Your task to perform on an android device: Show me the alarms in the clock app Image 0: 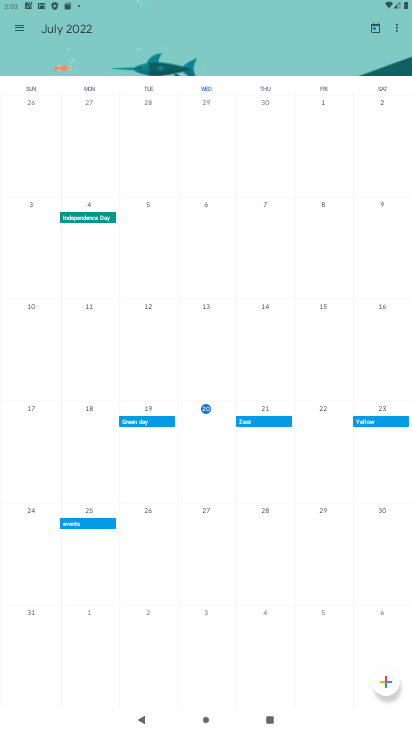
Step 0: press home button
Your task to perform on an android device: Show me the alarms in the clock app Image 1: 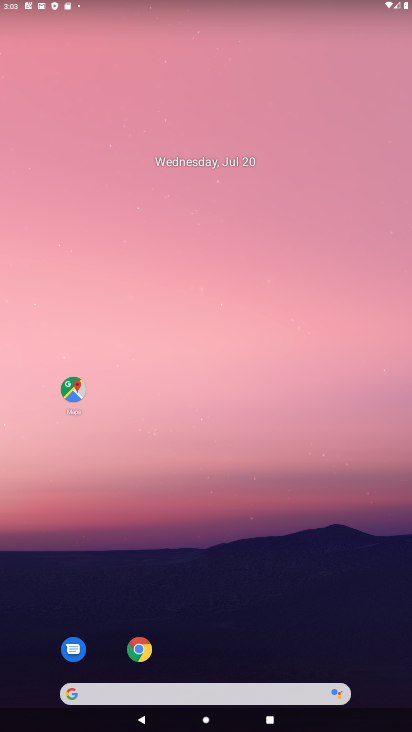
Step 1: drag from (183, 690) to (194, 160)
Your task to perform on an android device: Show me the alarms in the clock app Image 2: 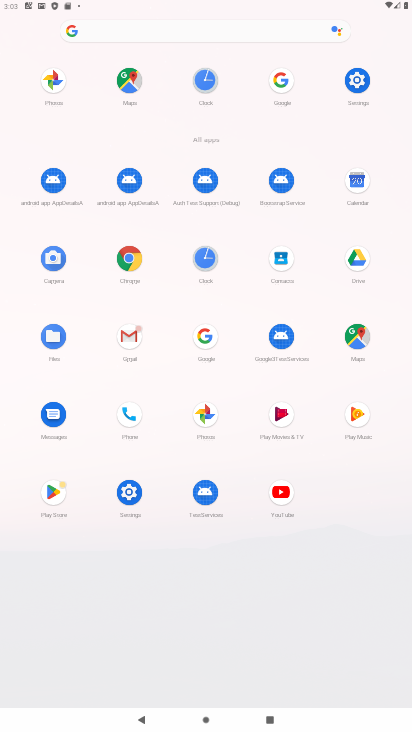
Step 2: click (206, 256)
Your task to perform on an android device: Show me the alarms in the clock app Image 3: 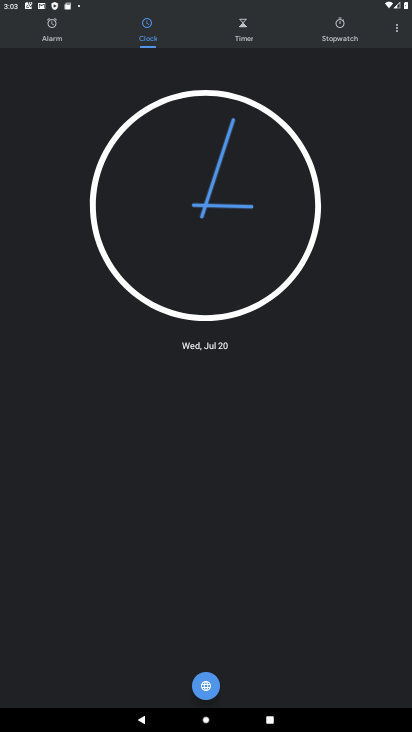
Step 3: click (49, 29)
Your task to perform on an android device: Show me the alarms in the clock app Image 4: 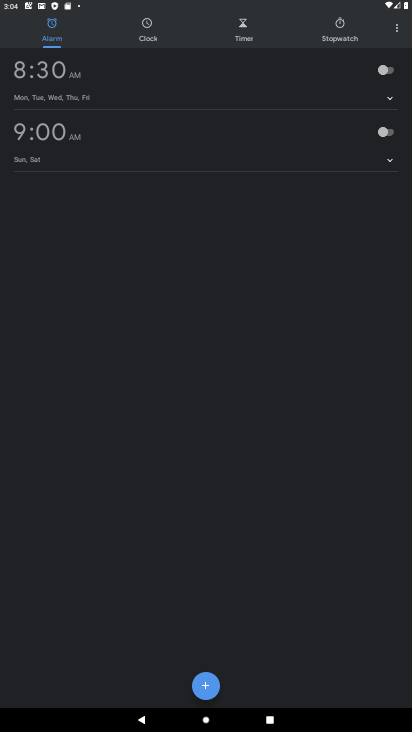
Step 4: click (204, 686)
Your task to perform on an android device: Show me the alarms in the clock app Image 5: 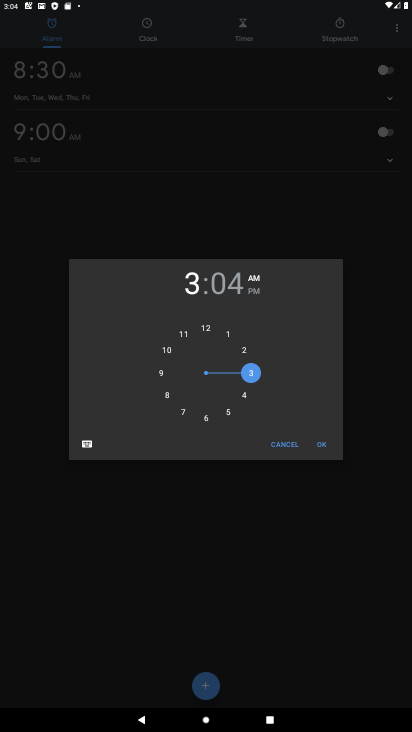
Step 5: click (202, 332)
Your task to perform on an android device: Show me the alarms in the clock app Image 6: 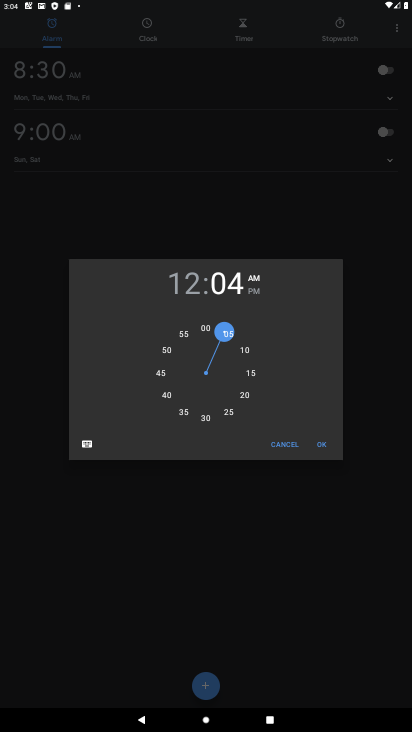
Step 6: click (202, 332)
Your task to perform on an android device: Show me the alarms in the clock app Image 7: 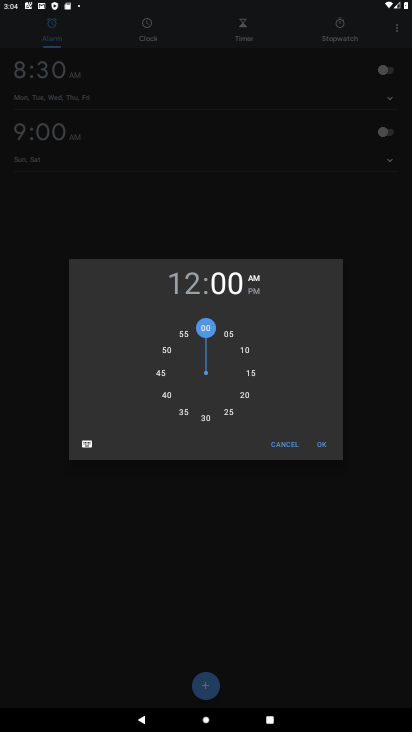
Step 7: click (322, 448)
Your task to perform on an android device: Show me the alarms in the clock app Image 8: 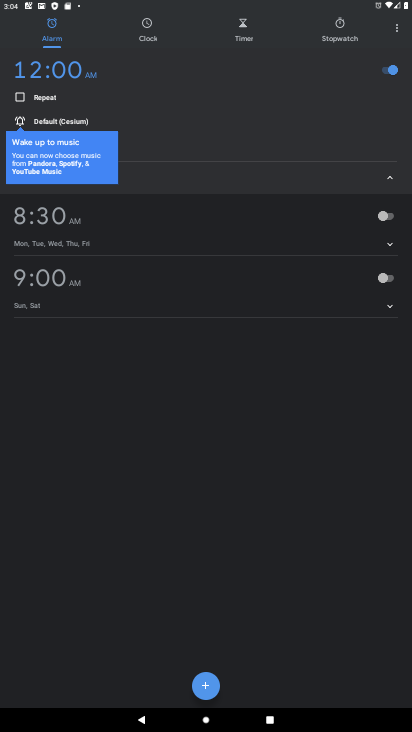
Step 8: task complete